Your task to perform on an android device: Search for pizza restaurants on Maps Image 0: 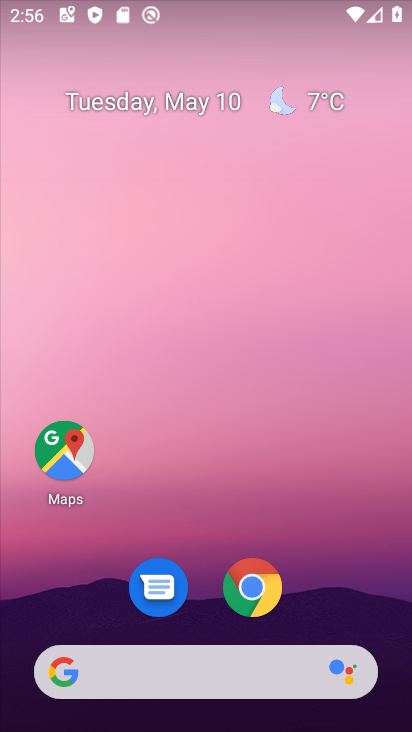
Step 0: click (78, 461)
Your task to perform on an android device: Search for pizza restaurants on Maps Image 1: 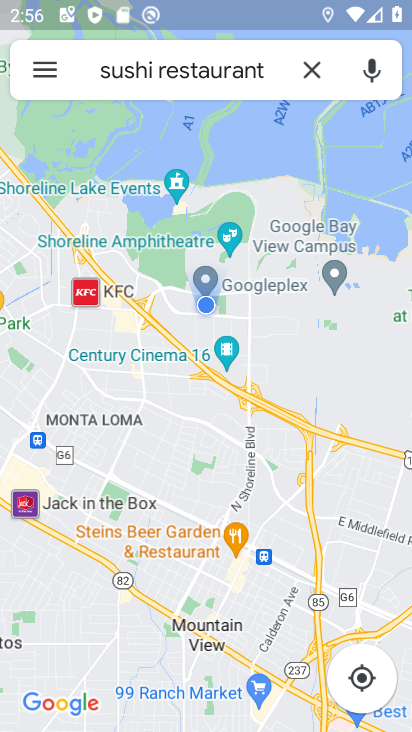
Step 1: click (318, 69)
Your task to perform on an android device: Search for pizza restaurants on Maps Image 2: 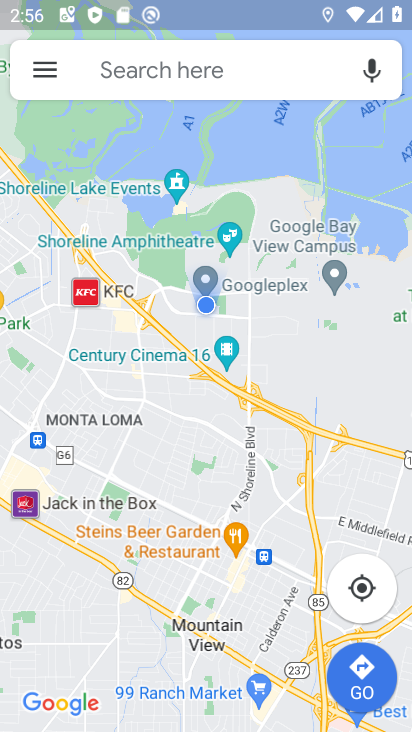
Step 2: click (201, 65)
Your task to perform on an android device: Search for pizza restaurants on Maps Image 3: 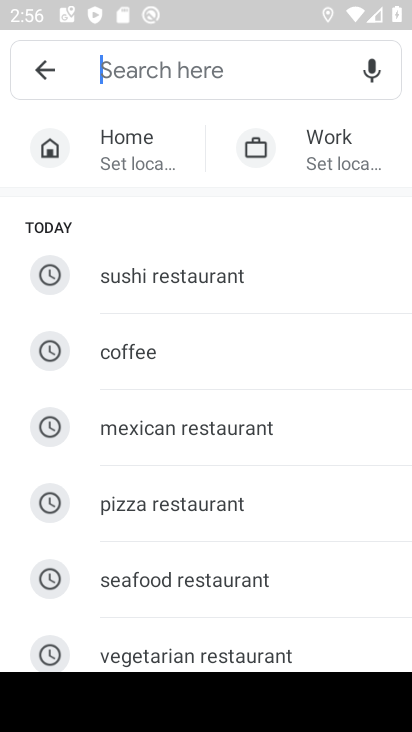
Step 3: click (241, 504)
Your task to perform on an android device: Search for pizza restaurants on Maps Image 4: 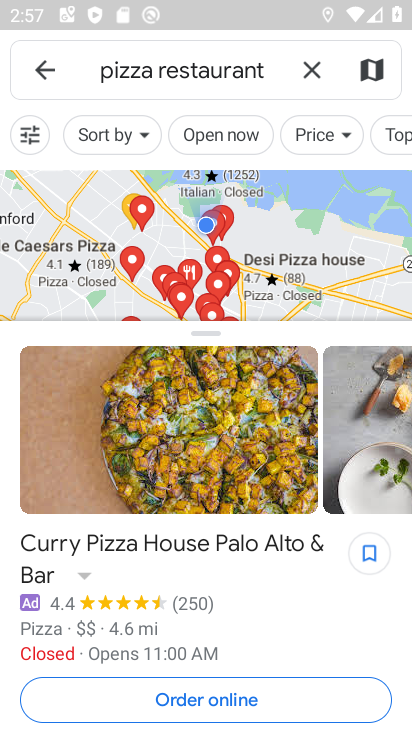
Step 4: task complete